Your task to perform on an android device: Do I have any events tomorrow? Image 0: 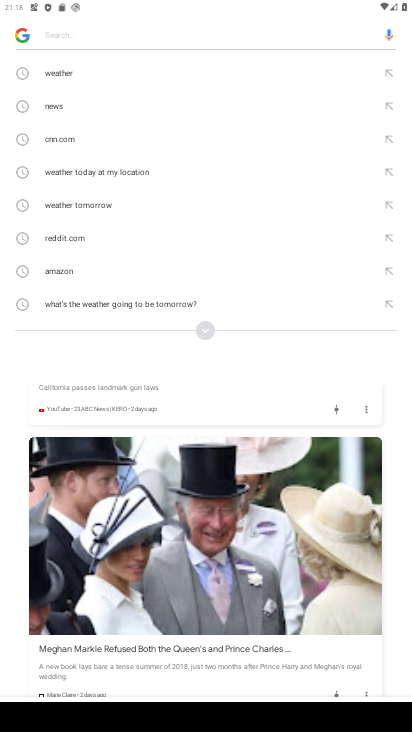
Step 0: press home button
Your task to perform on an android device: Do I have any events tomorrow? Image 1: 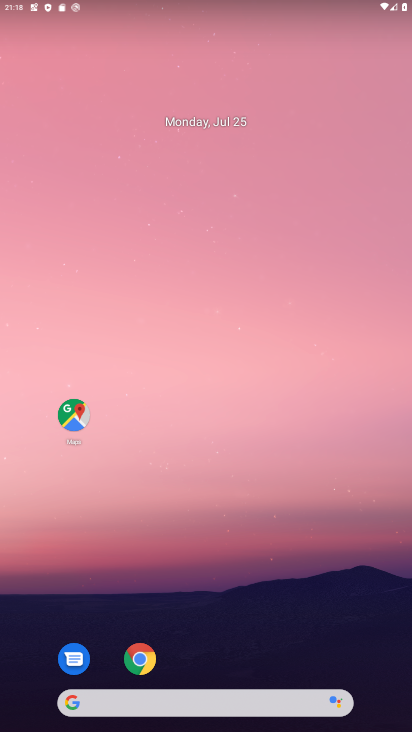
Step 1: drag from (229, 644) to (124, 37)
Your task to perform on an android device: Do I have any events tomorrow? Image 2: 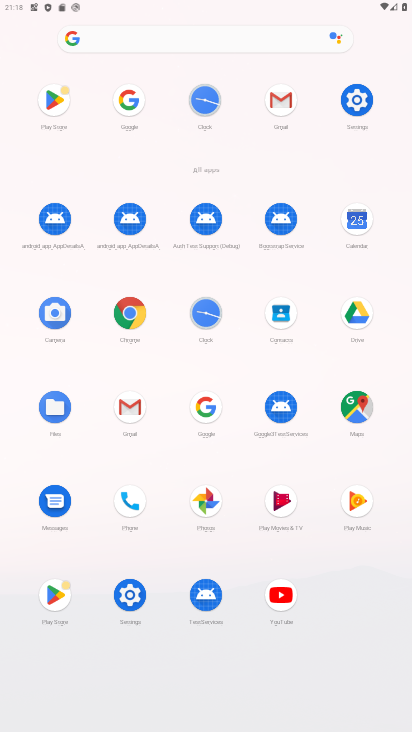
Step 2: click (345, 223)
Your task to perform on an android device: Do I have any events tomorrow? Image 3: 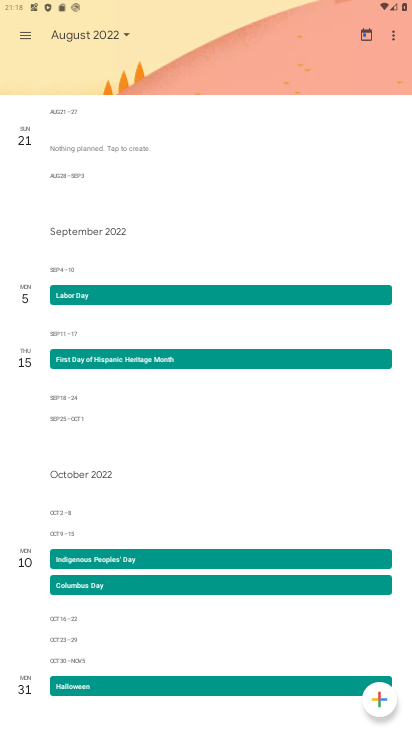
Step 3: click (134, 43)
Your task to perform on an android device: Do I have any events tomorrow? Image 4: 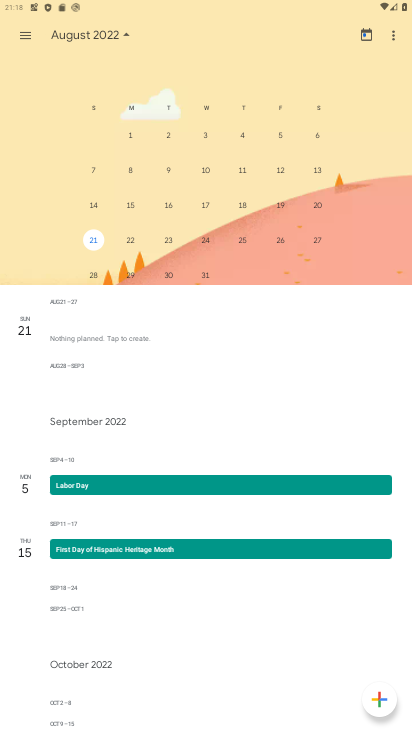
Step 4: drag from (60, 179) to (404, 147)
Your task to perform on an android device: Do I have any events tomorrow? Image 5: 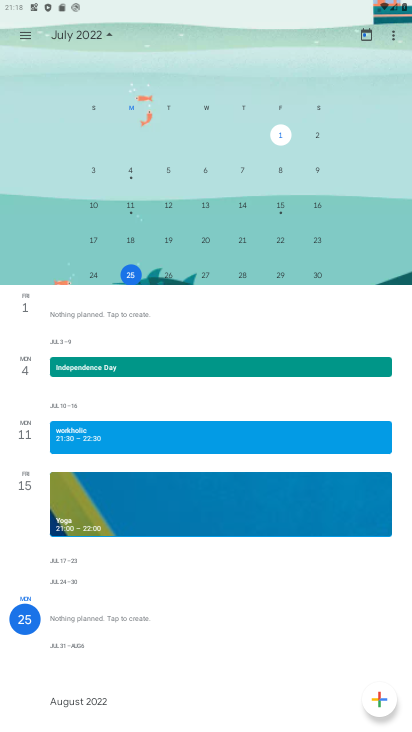
Step 5: click (165, 278)
Your task to perform on an android device: Do I have any events tomorrow? Image 6: 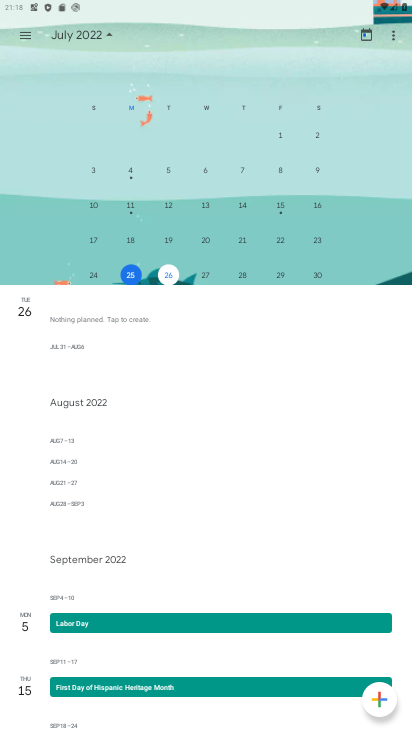
Step 6: task complete